Your task to perform on an android device: Open the web browser Image 0: 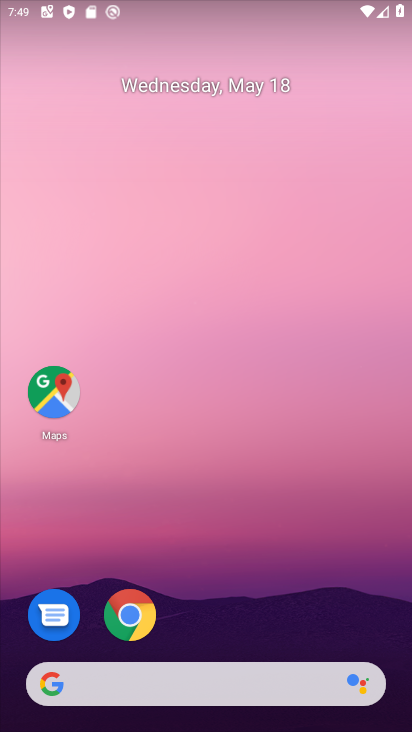
Step 0: click (132, 609)
Your task to perform on an android device: Open the web browser Image 1: 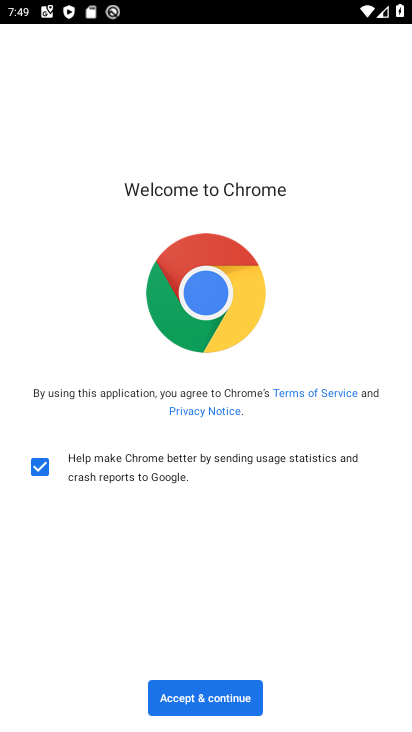
Step 1: click (230, 697)
Your task to perform on an android device: Open the web browser Image 2: 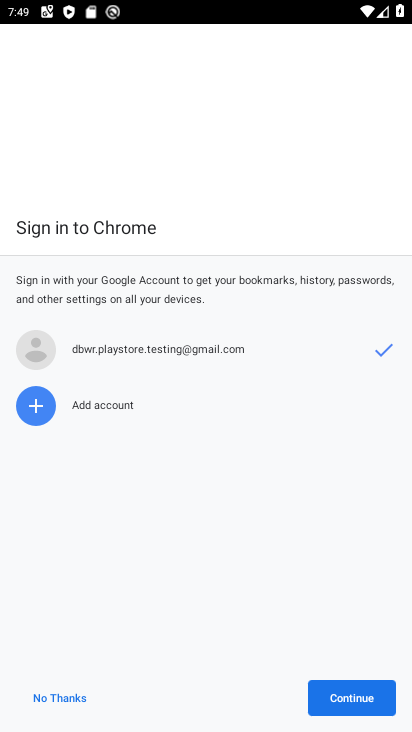
Step 2: click (372, 691)
Your task to perform on an android device: Open the web browser Image 3: 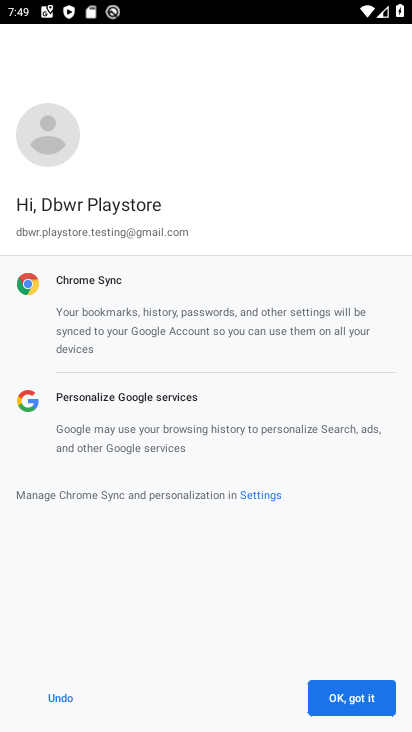
Step 3: click (332, 694)
Your task to perform on an android device: Open the web browser Image 4: 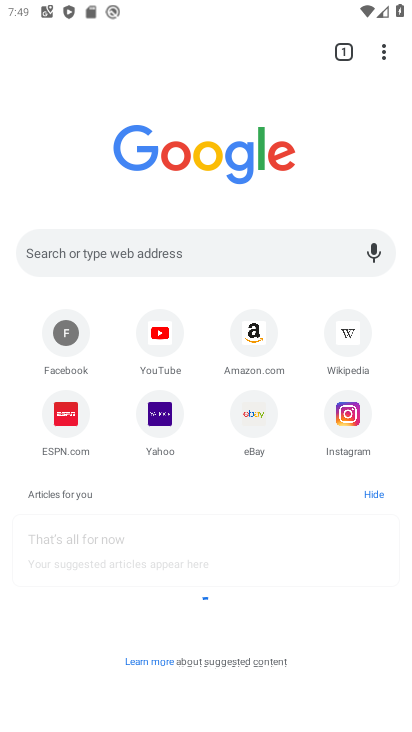
Step 4: task complete